Your task to perform on an android device: find snoozed emails in the gmail app Image 0: 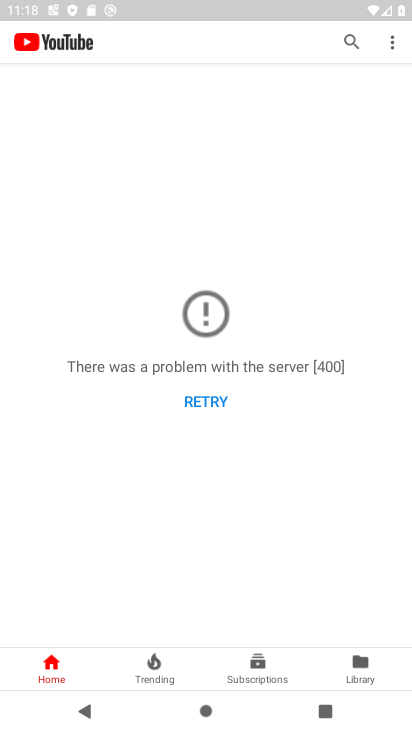
Step 0: press home button
Your task to perform on an android device: find snoozed emails in the gmail app Image 1: 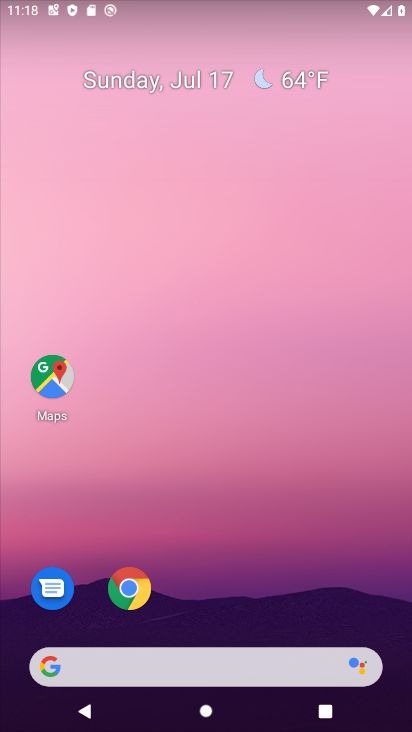
Step 1: drag from (197, 663) to (189, 78)
Your task to perform on an android device: find snoozed emails in the gmail app Image 2: 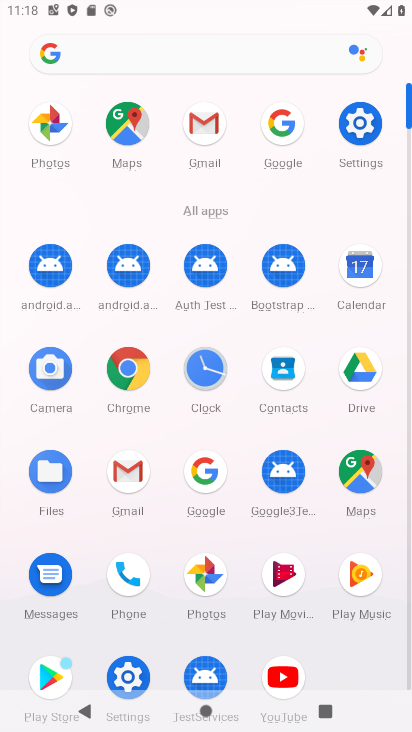
Step 2: click (130, 479)
Your task to perform on an android device: find snoozed emails in the gmail app Image 3: 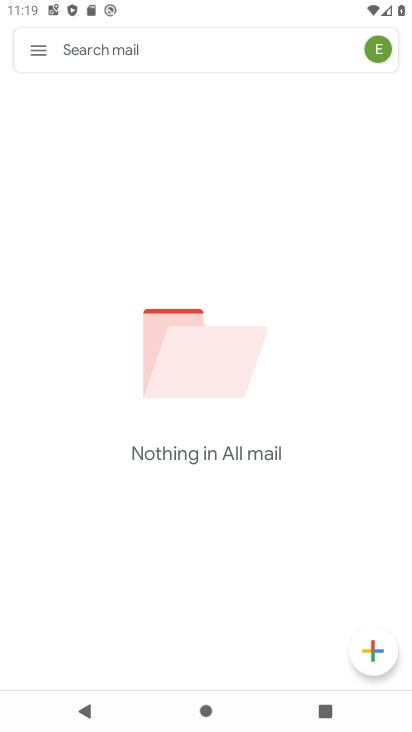
Step 3: click (32, 60)
Your task to perform on an android device: find snoozed emails in the gmail app Image 4: 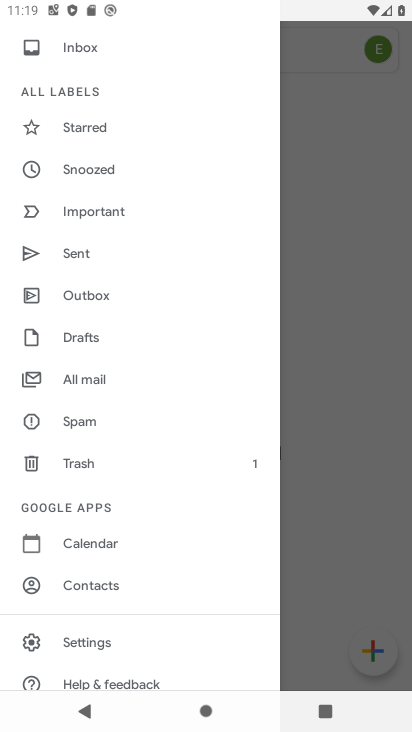
Step 4: click (79, 174)
Your task to perform on an android device: find snoozed emails in the gmail app Image 5: 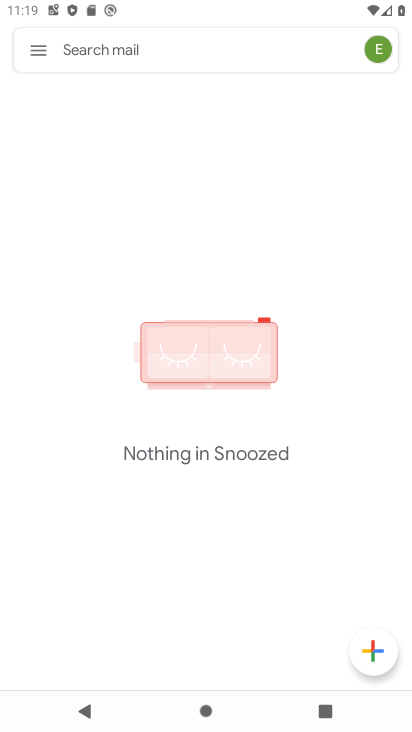
Step 5: task complete